Your task to perform on an android device: What's the weather today? Image 0: 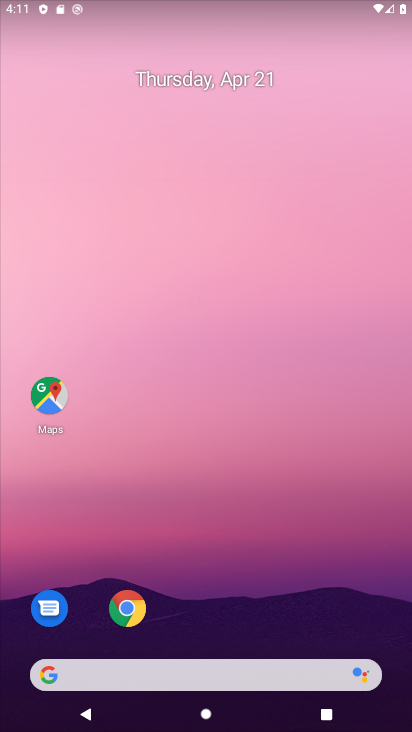
Step 0: drag from (232, 623) to (255, 142)
Your task to perform on an android device: What's the weather today? Image 1: 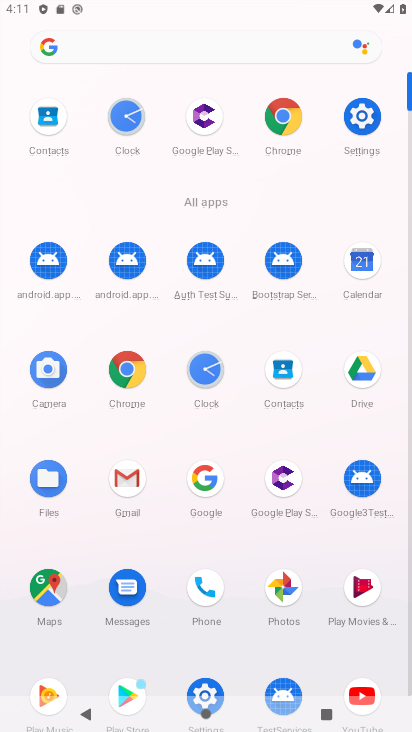
Step 1: click (361, 123)
Your task to perform on an android device: What's the weather today? Image 2: 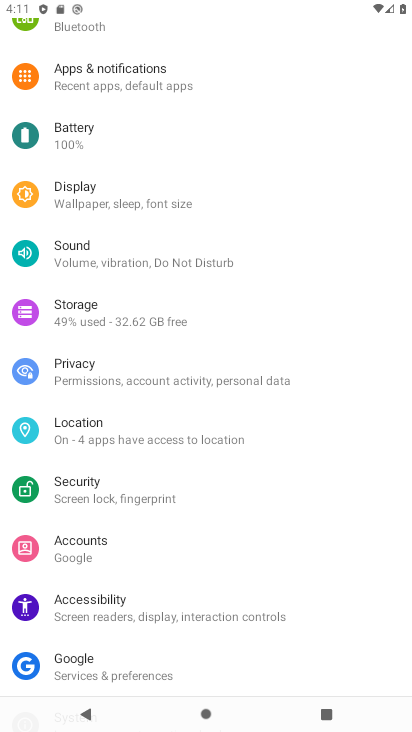
Step 2: click (131, 382)
Your task to perform on an android device: What's the weather today? Image 3: 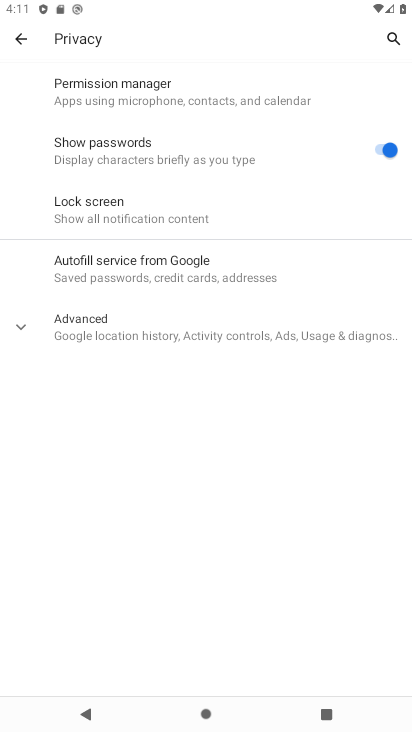
Step 3: task complete